Your task to perform on an android device: Open the Play Movies app and select the watchlist tab. Image 0: 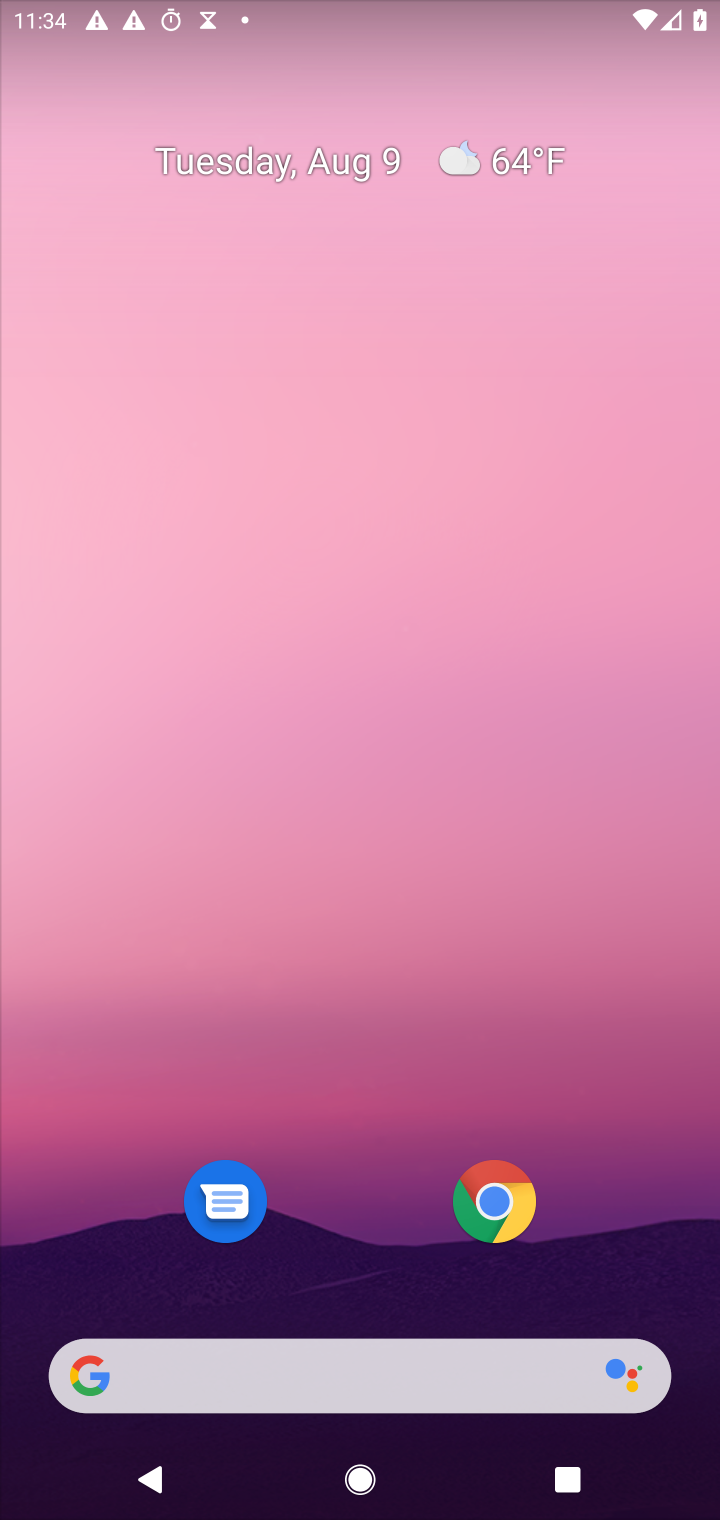
Step 0: press home button
Your task to perform on an android device: Open the Play Movies app and select the watchlist tab. Image 1: 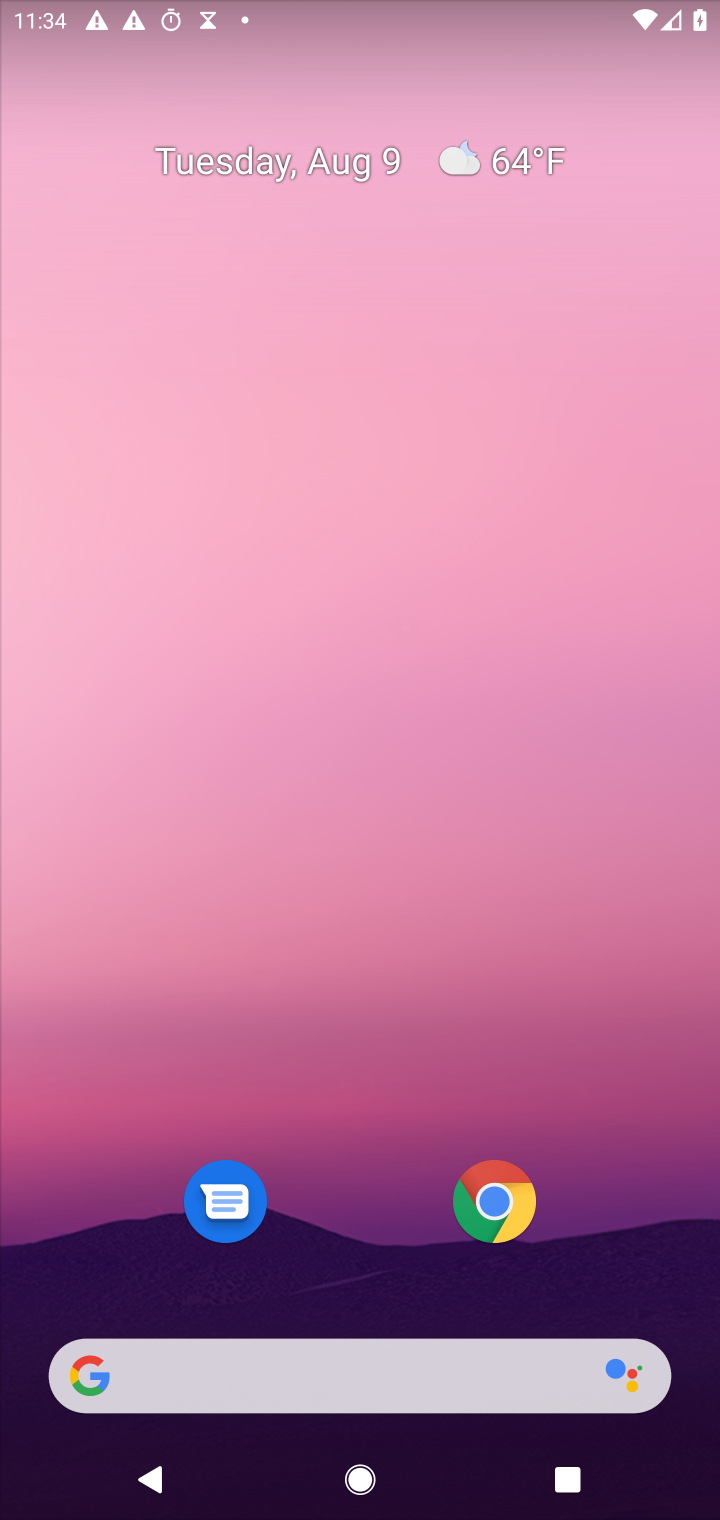
Step 1: drag from (349, 1052) to (382, 58)
Your task to perform on an android device: Open the Play Movies app and select the watchlist tab. Image 2: 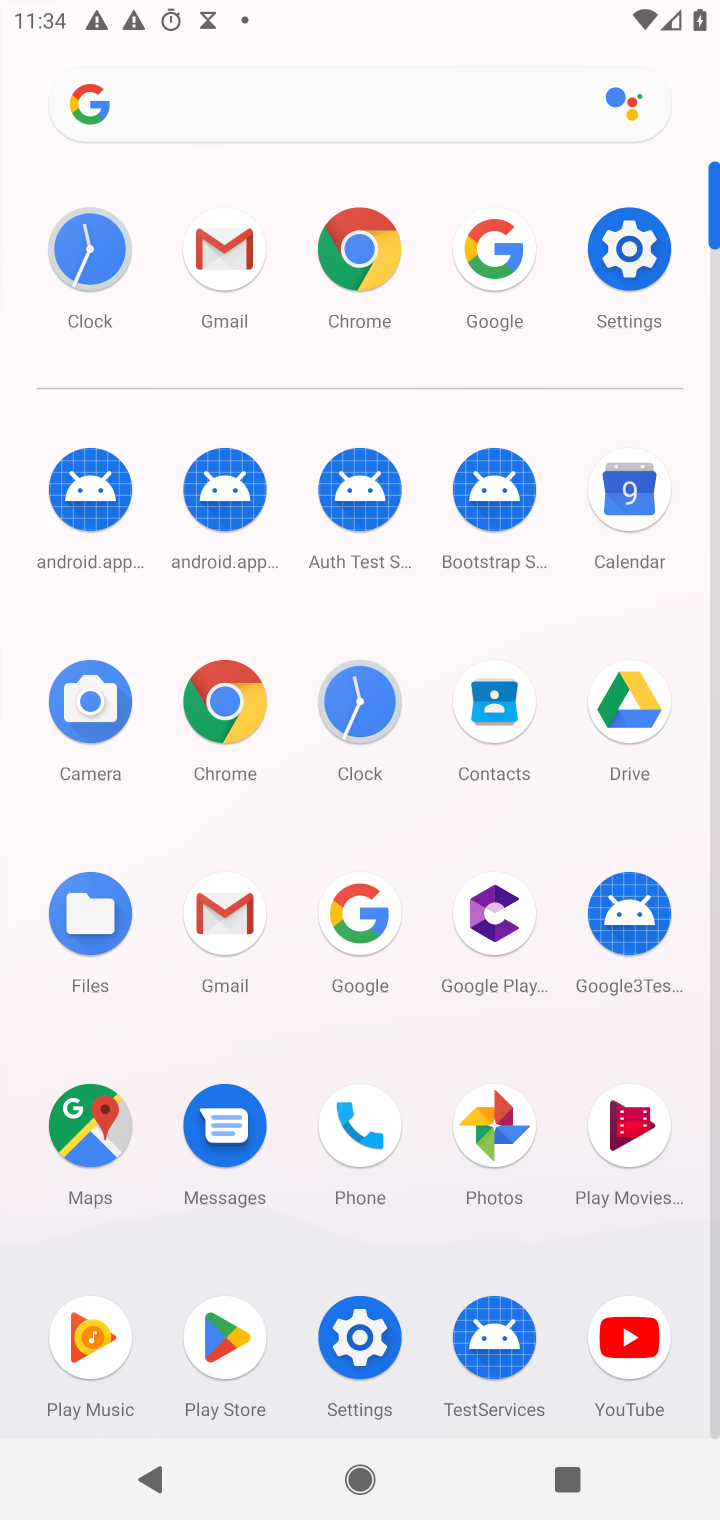
Step 2: click (619, 1139)
Your task to perform on an android device: Open the Play Movies app and select the watchlist tab. Image 3: 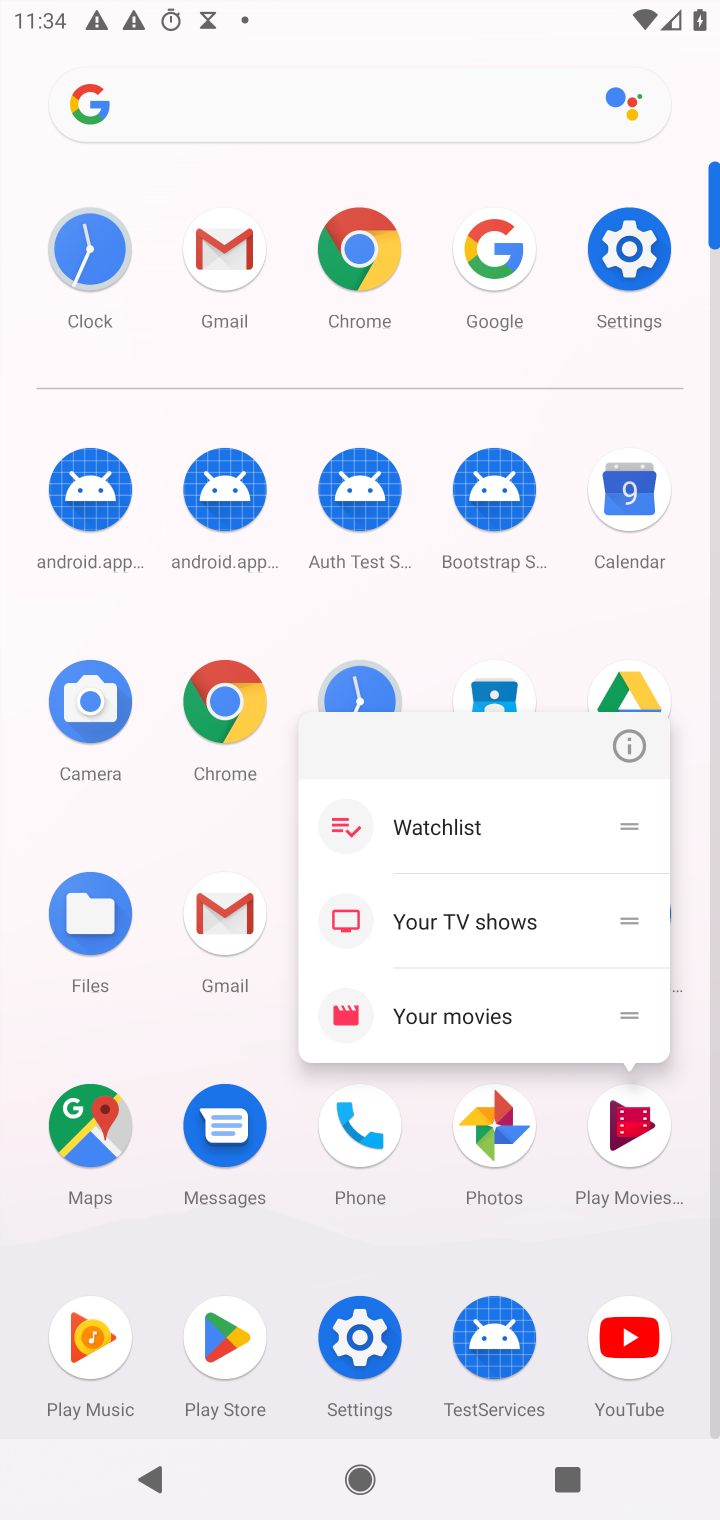
Step 3: click (596, 1143)
Your task to perform on an android device: Open the Play Movies app and select the watchlist tab. Image 4: 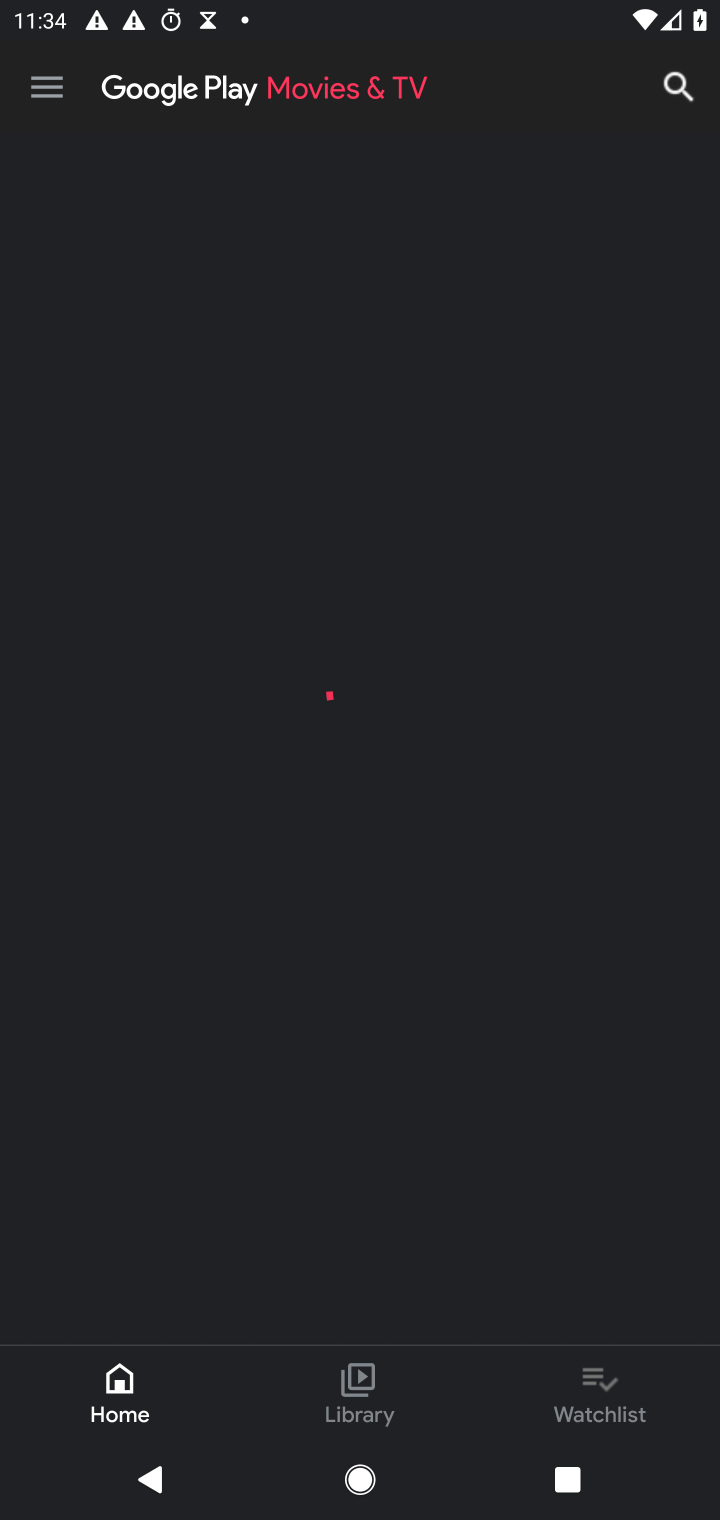
Step 4: click (596, 1395)
Your task to perform on an android device: Open the Play Movies app and select the watchlist tab. Image 5: 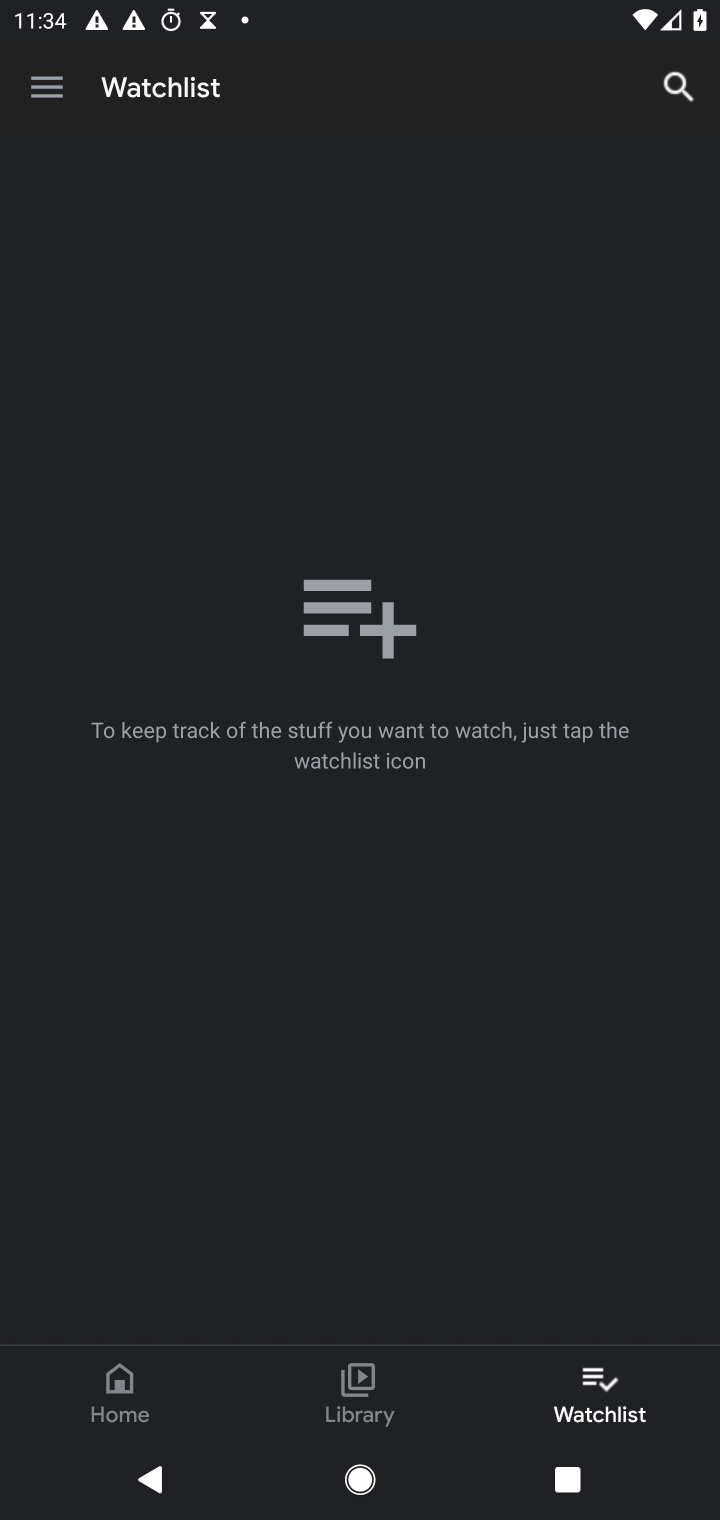
Step 5: task complete